Your task to perform on an android device: uninstall "Calculator" Image 0: 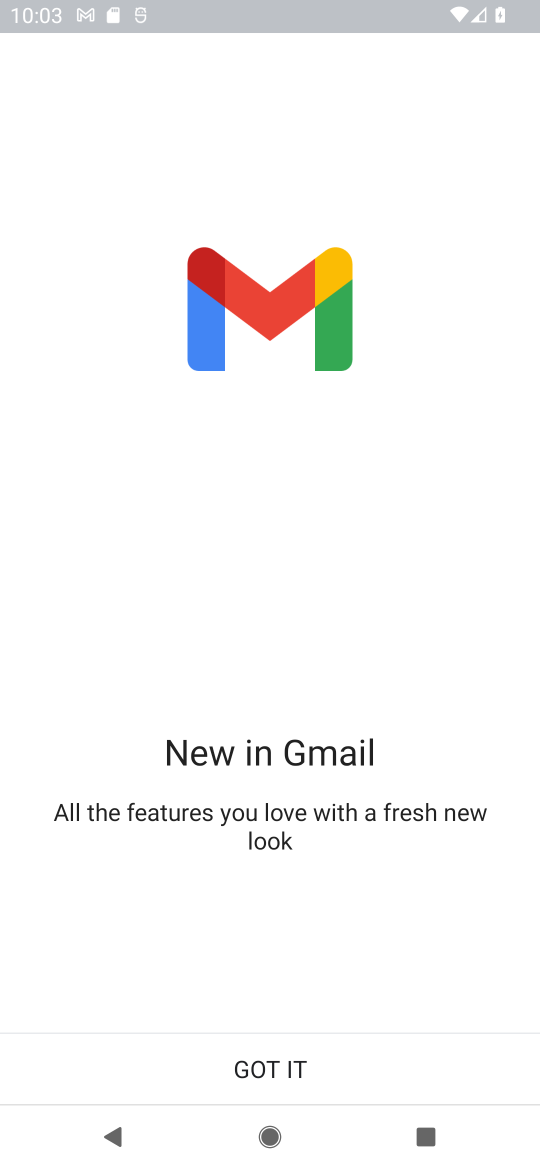
Step 0: press home button
Your task to perform on an android device: uninstall "Calculator" Image 1: 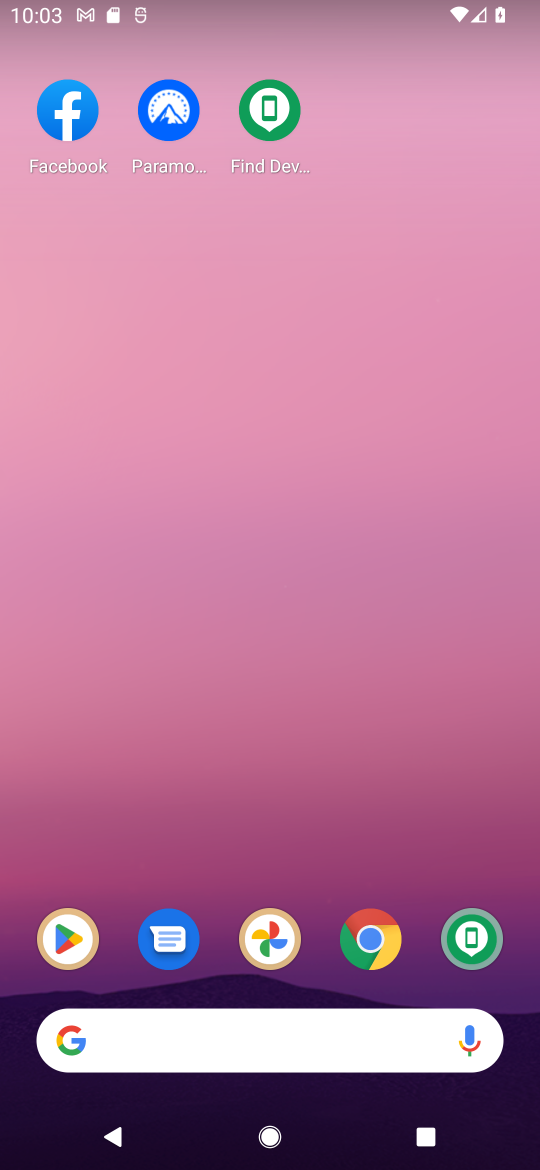
Step 1: click (81, 954)
Your task to perform on an android device: uninstall "Calculator" Image 2: 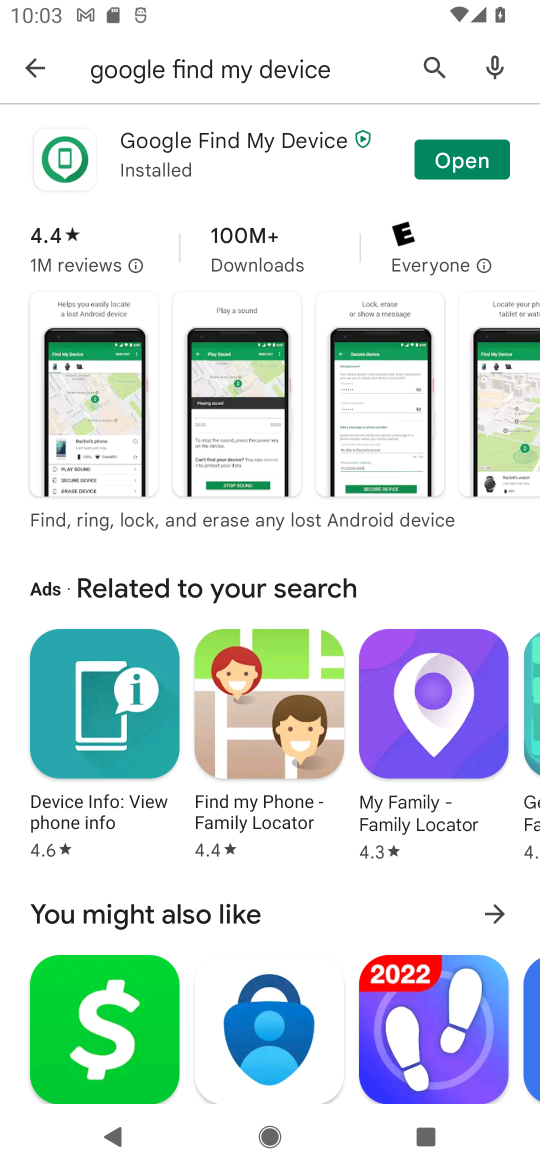
Step 2: click (424, 69)
Your task to perform on an android device: uninstall "Calculator" Image 3: 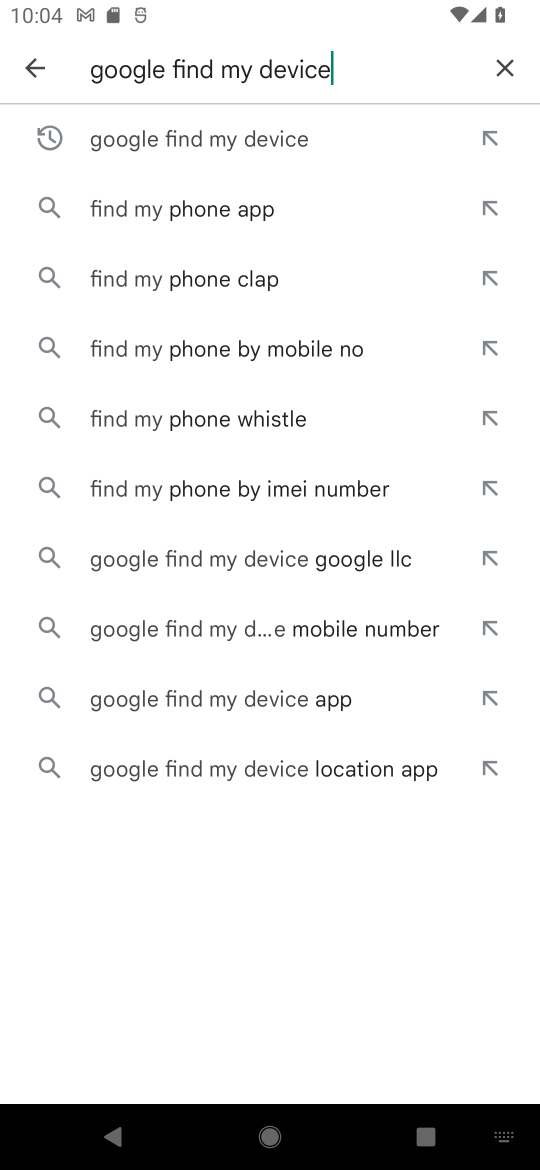
Step 3: click (508, 63)
Your task to perform on an android device: uninstall "Calculator" Image 4: 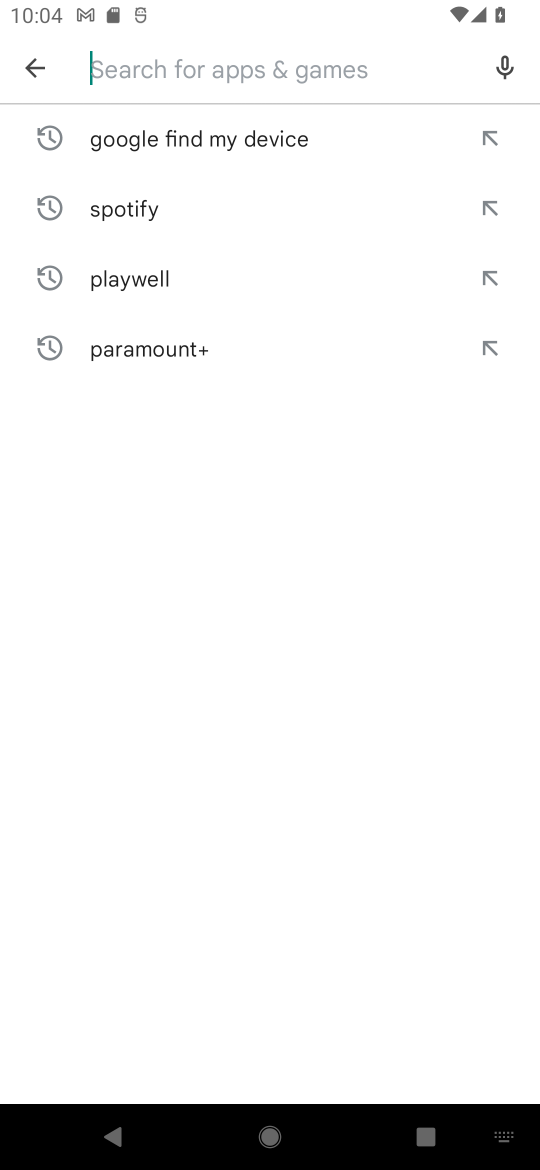
Step 4: type "calculator"
Your task to perform on an android device: uninstall "Calculator" Image 5: 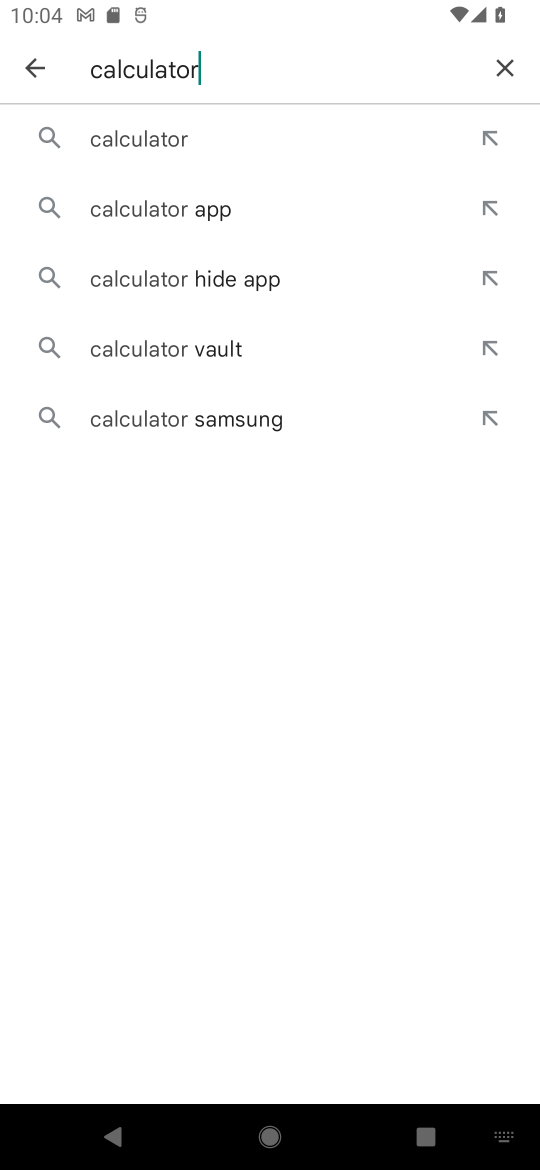
Step 5: click (172, 127)
Your task to perform on an android device: uninstall "Calculator" Image 6: 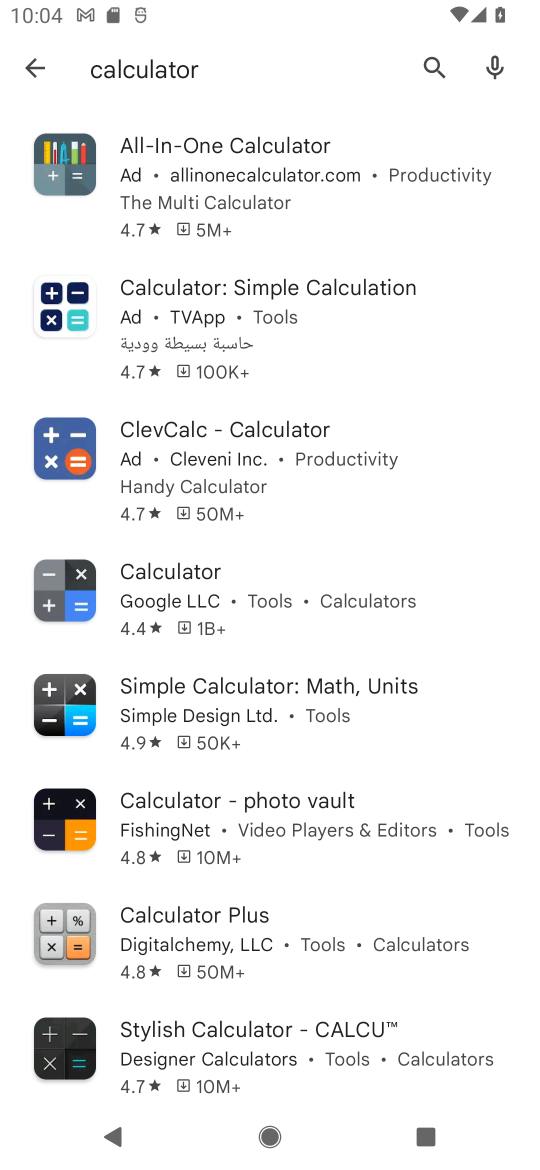
Step 6: task complete